Your task to perform on an android device: Open Google Maps and go to "Timeline" Image 0: 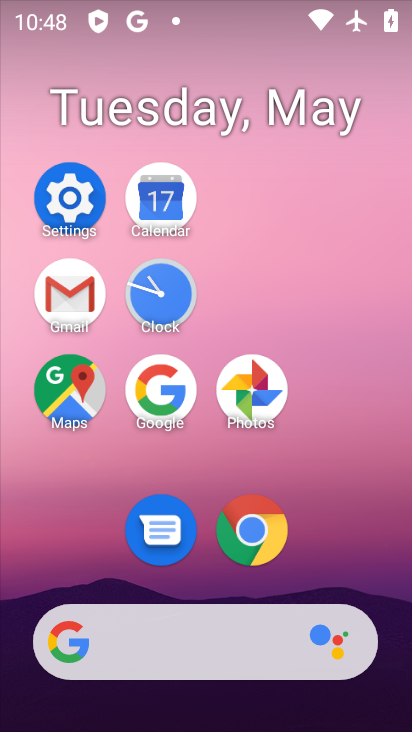
Step 0: click (92, 384)
Your task to perform on an android device: Open Google Maps and go to "Timeline" Image 1: 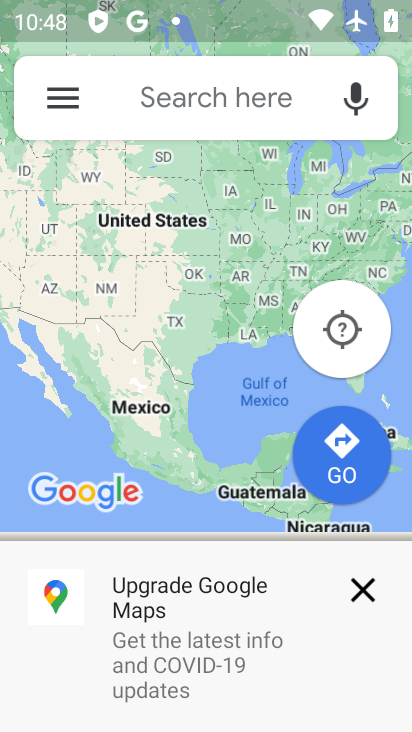
Step 1: click (69, 103)
Your task to perform on an android device: Open Google Maps and go to "Timeline" Image 2: 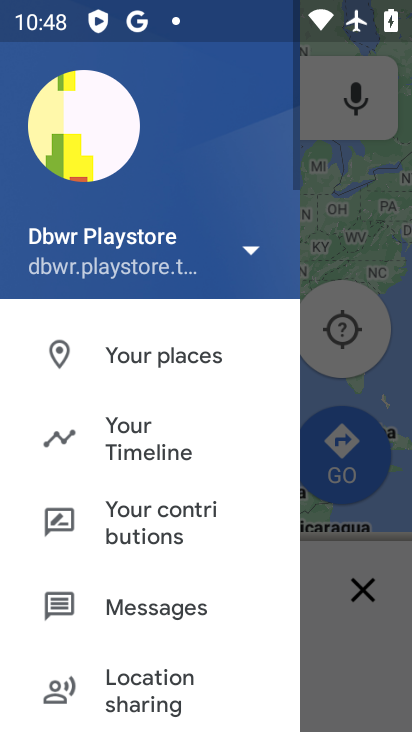
Step 2: click (172, 431)
Your task to perform on an android device: Open Google Maps and go to "Timeline" Image 3: 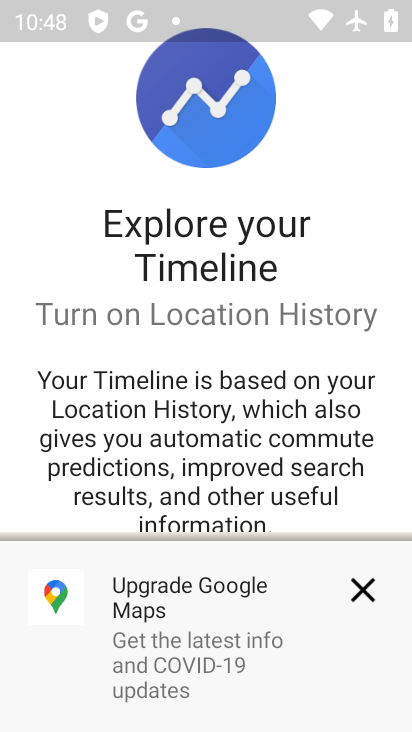
Step 3: click (366, 587)
Your task to perform on an android device: Open Google Maps and go to "Timeline" Image 4: 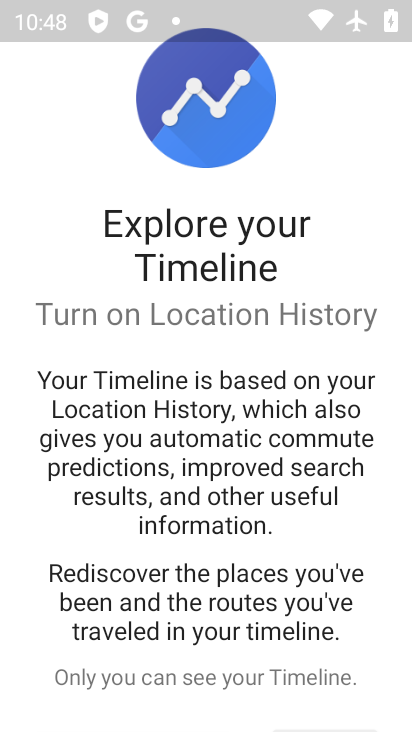
Step 4: drag from (336, 636) to (356, 214)
Your task to perform on an android device: Open Google Maps and go to "Timeline" Image 5: 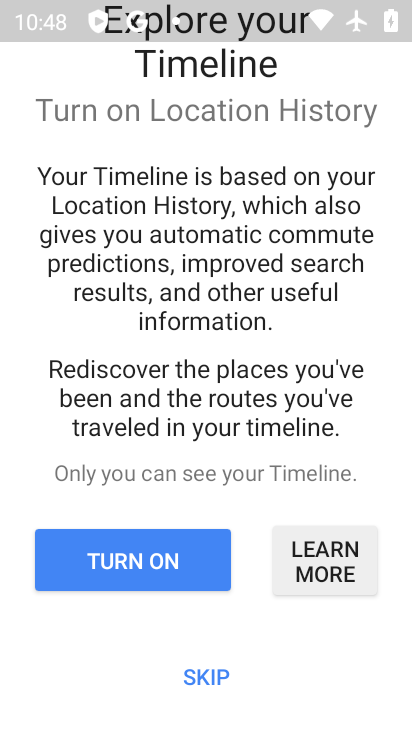
Step 5: click (136, 551)
Your task to perform on an android device: Open Google Maps and go to "Timeline" Image 6: 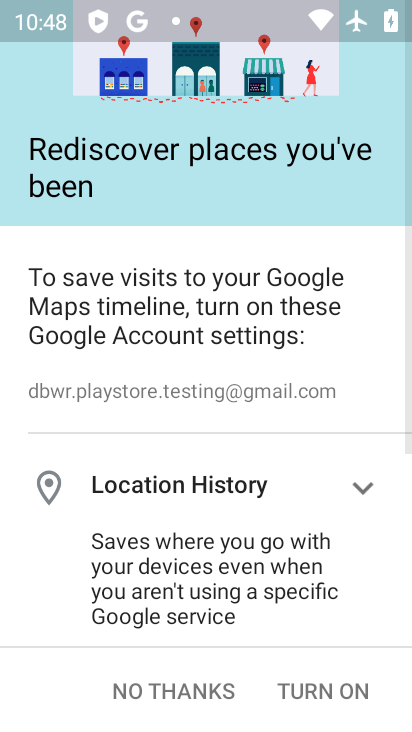
Step 6: click (347, 681)
Your task to perform on an android device: Open Google Maps and go to "Timeline" Image 7: 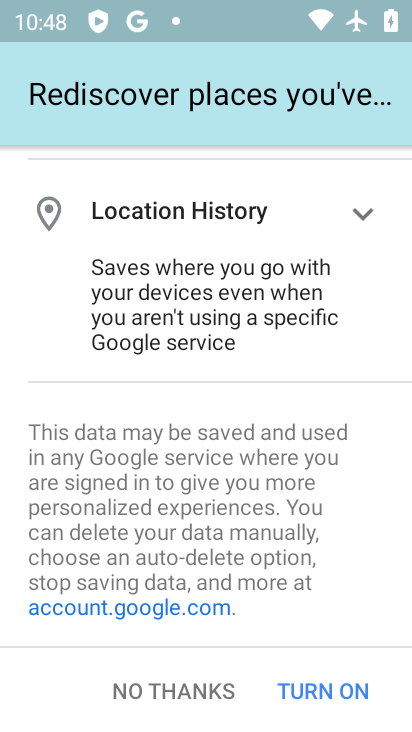
Step 7: click (350, 685)
Your task to perform on an android device: Open Google Maps and go to "Timeline" Image 8: 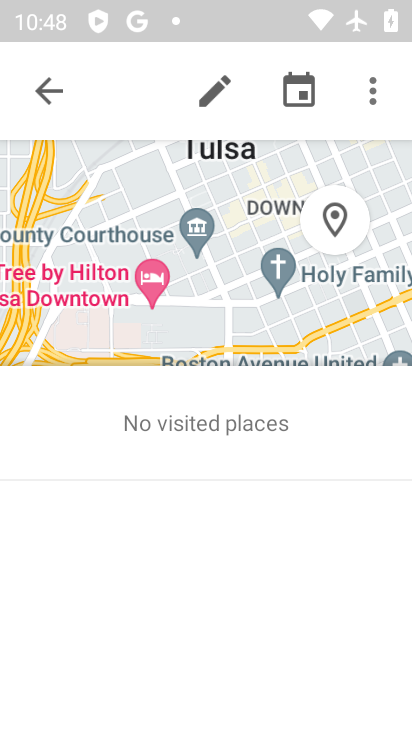
Step 8: task complete